Your task to perform on an android device: turn on location history Image 0: 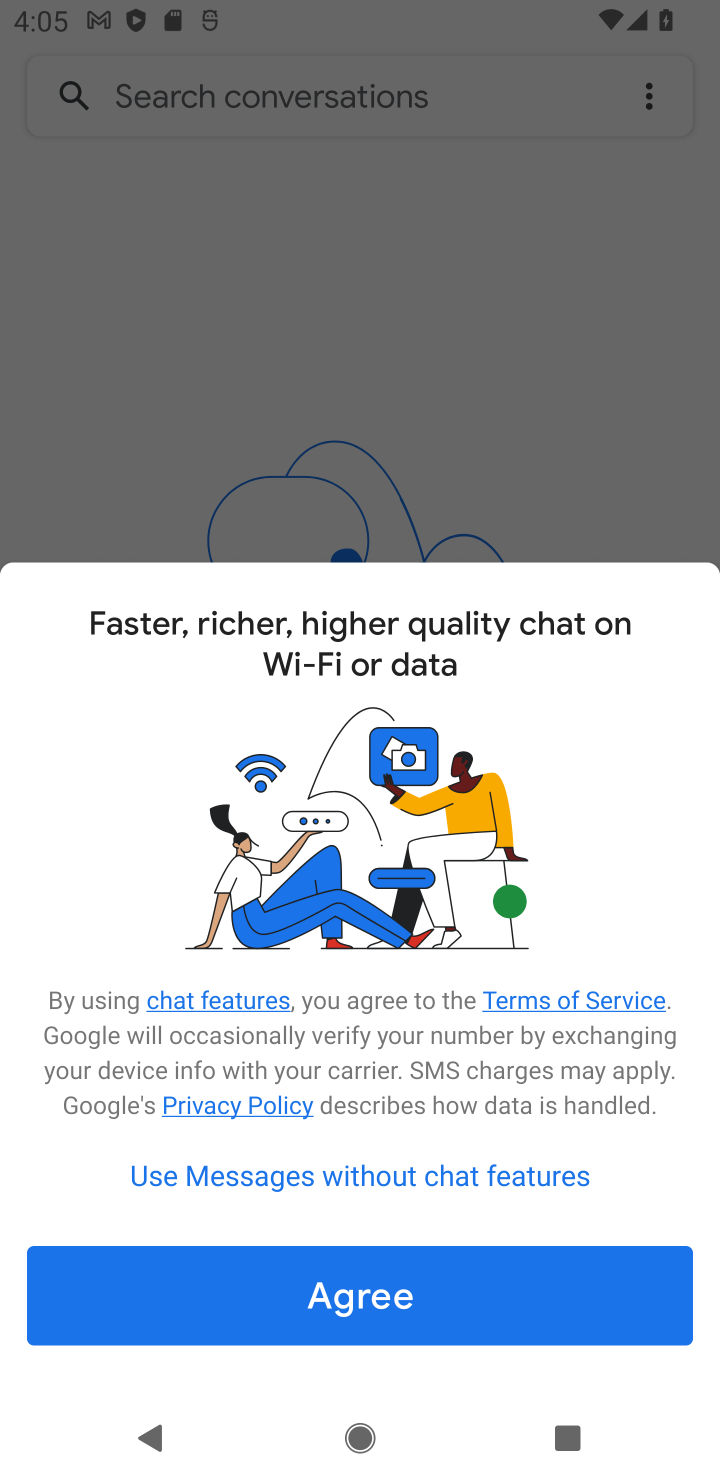
Step 0: task complete